Your task to perform on an android device: Go to Google Image 0: 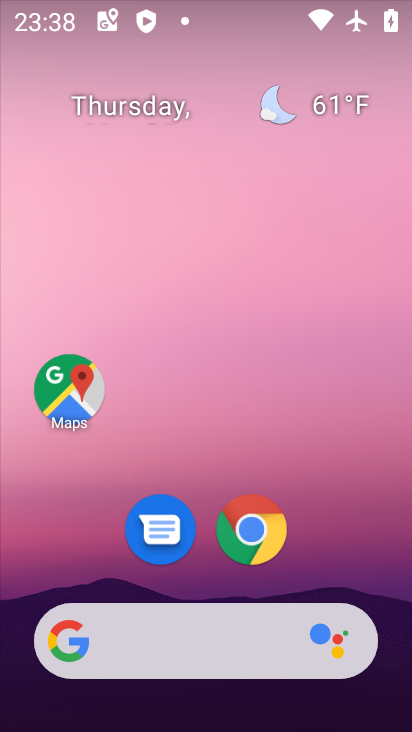
Step 0: drag from (328, 412) to (325, 179)
Your task to perform on an android device: Go to Google Image 1: 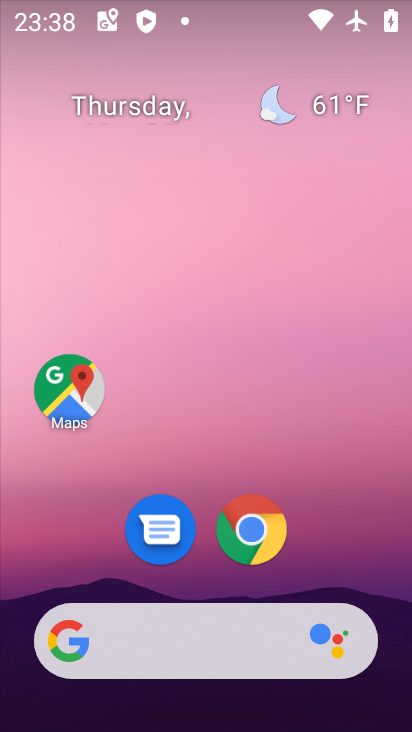
Step 1: click (221, 641)
Your task to perform on an android device: Go to Google Image 2: 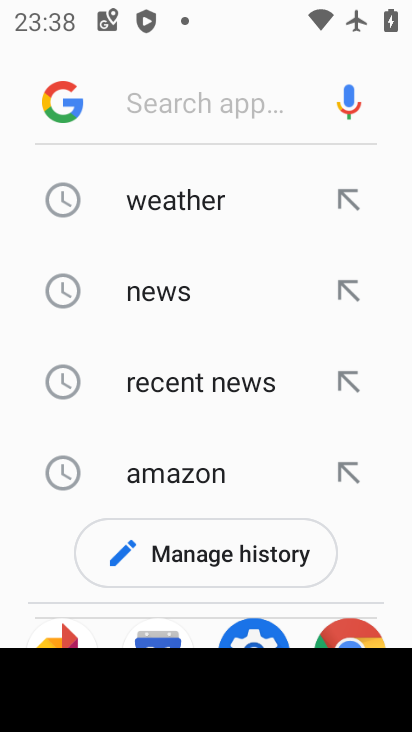
Step 2: type "google.com"
Your task to perform on an android device: Go to Google Image 3: 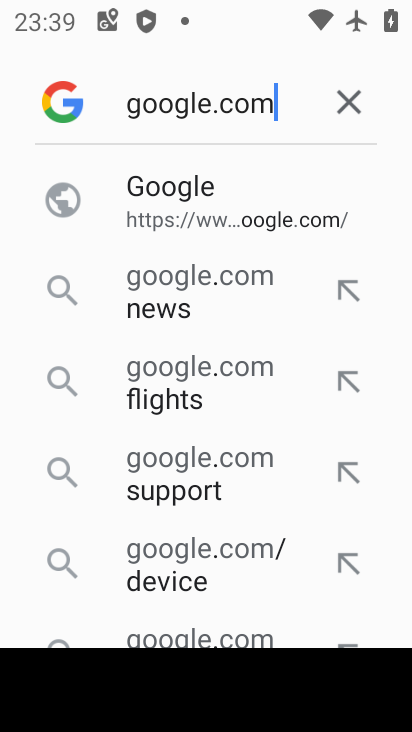
Step 3: click (275, 187)
Your task to perform on an android device: Go to Google Image 4: 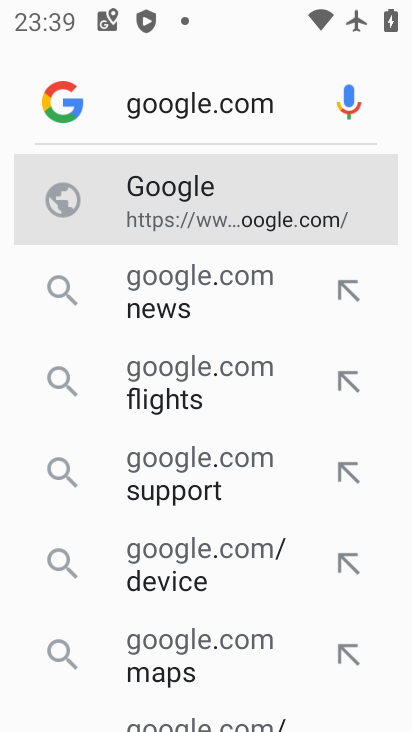
Step 4: task complete